Your task to perform on an android device: Open display settings Image 0: 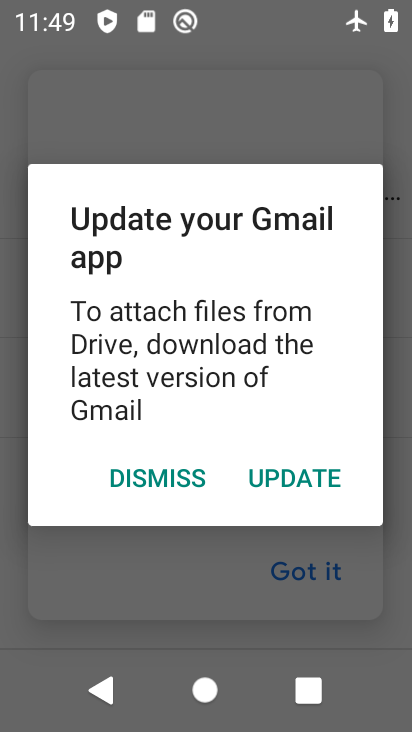
Step 0: press home button
Your task to perform on an android device: Open display settings Image 1: 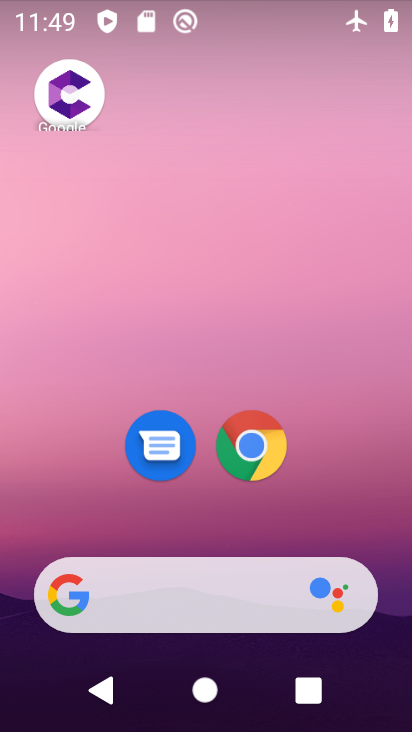
Step 1: drag from (387, 506) to (293, 116)
Your task to perform on an android device: Open display settings Image 2: 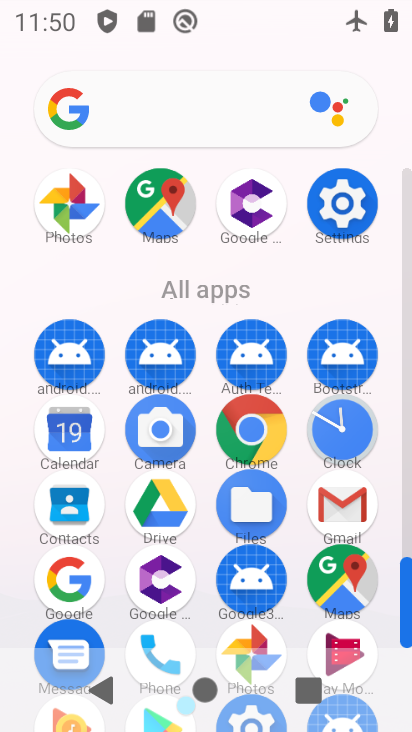
Step 2: click (345, 212)
Your task to perform on an android device: Open display settings Image 3: 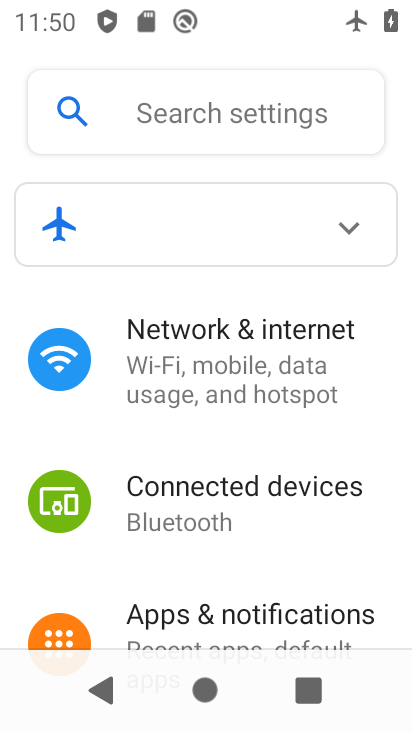
Step 3: drag from (310, 585) to (274, 196)
Your task to perform on an android device: Open display settings Image 4: 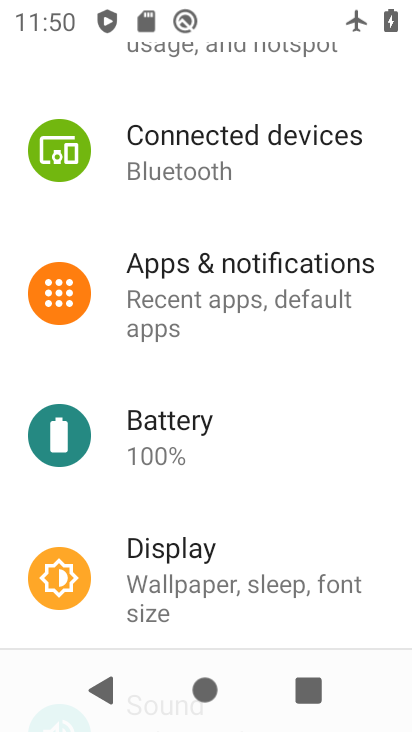
Step 4: click (282, 562)
Your task to perform on an android device: Open display settings Image 5: 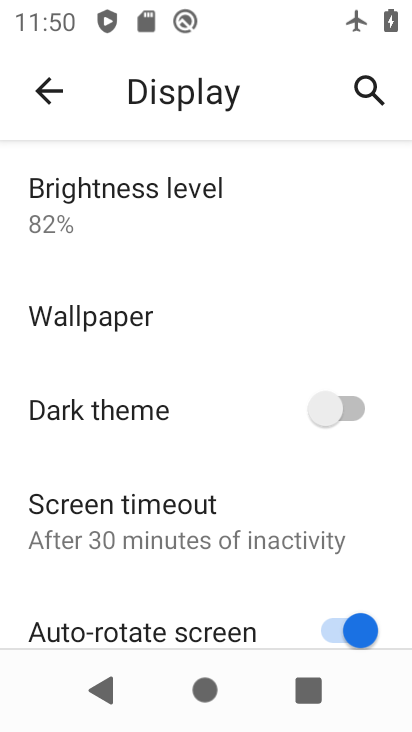
Step 5: task complete